Your task to perform on an android device: Set the phone to "Do not disturb". Image 0: 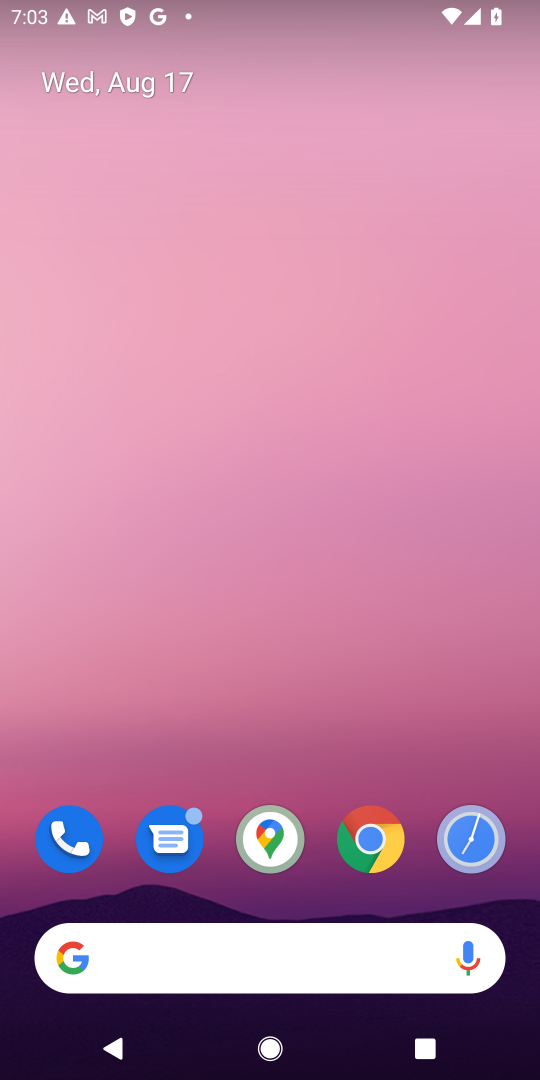
Step 0: drag from (264, 907) to (171, 3)
Your task to perform on an android device: Set the phone to "Do not disturb". Image 1: 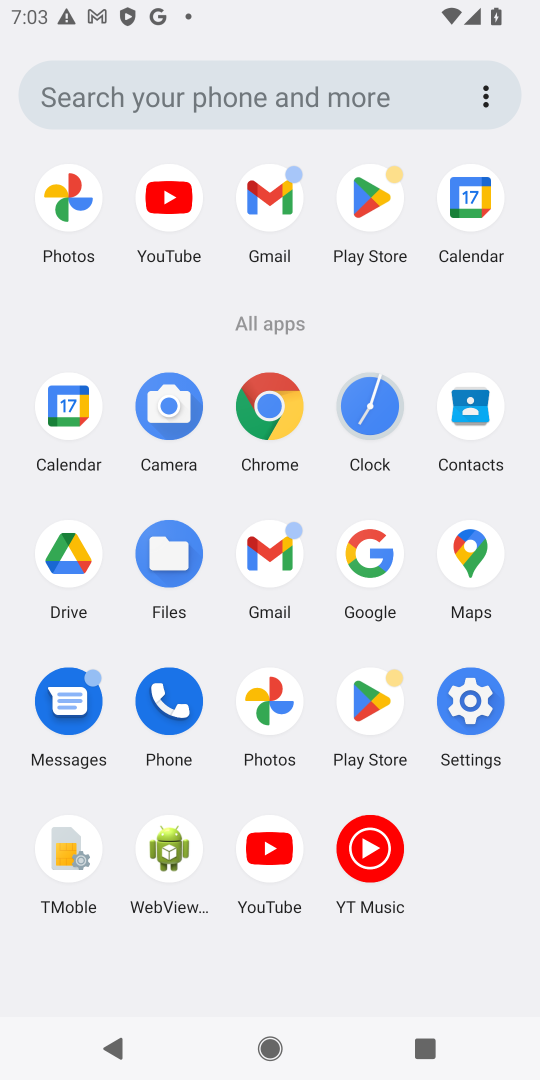
Step 1: drag from (277, 3) to (274, 648)
Your task to perform on an android device: Set the phone to "Do not disturb". Image 2: 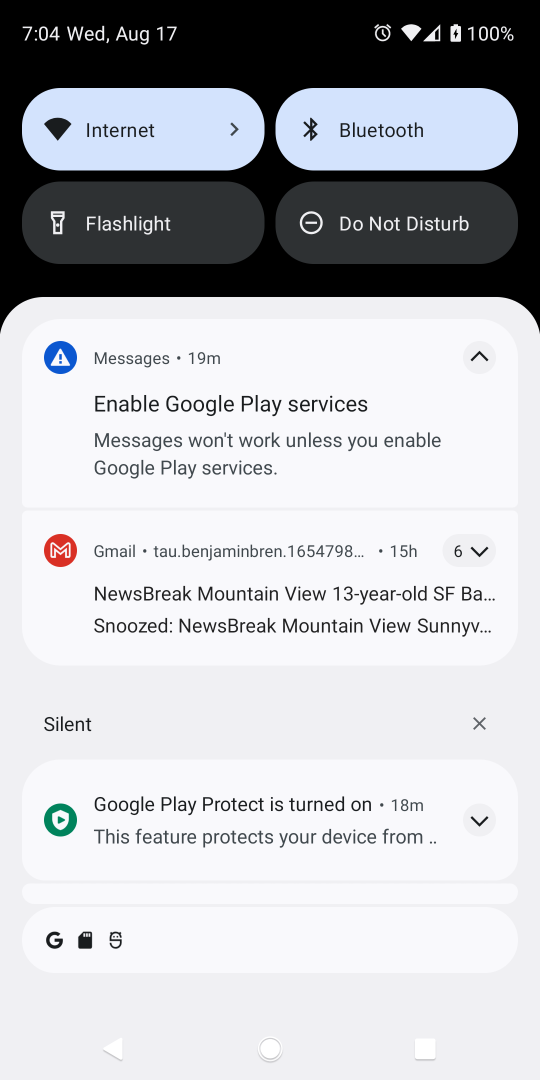
Step 2: click (357, 224)
Your task to perform on an android device: Set the phone to "Do not disturb". Image 3: 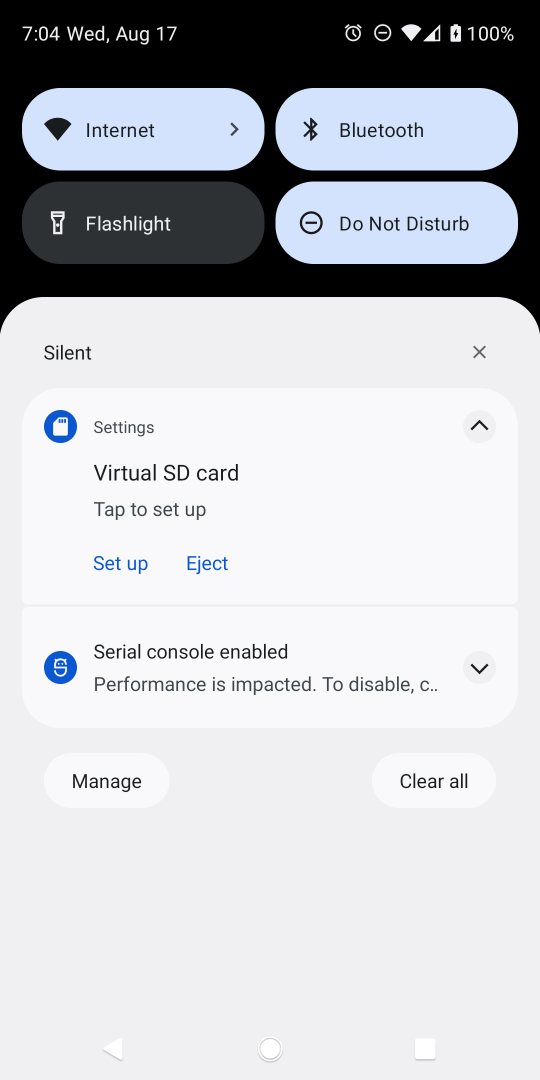
Step 3: task complete